Your task to perform on an android device: What's US dollar exchange rate against the British Pound? Image 0: 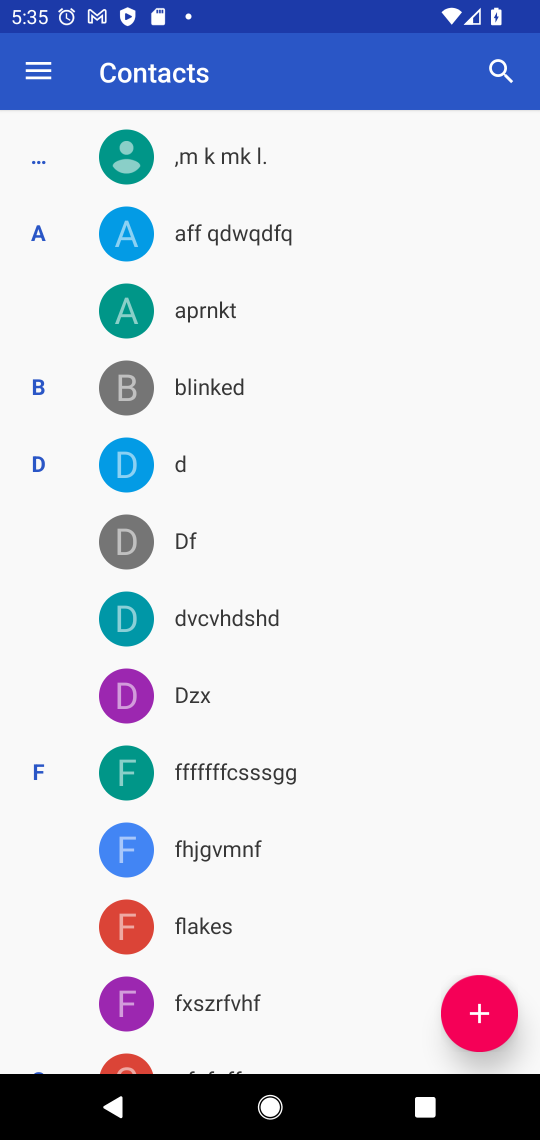
Step 0: press home button
Your task to perform on an android device: What's US dollar exchange rate against the British Pound? Image 1: 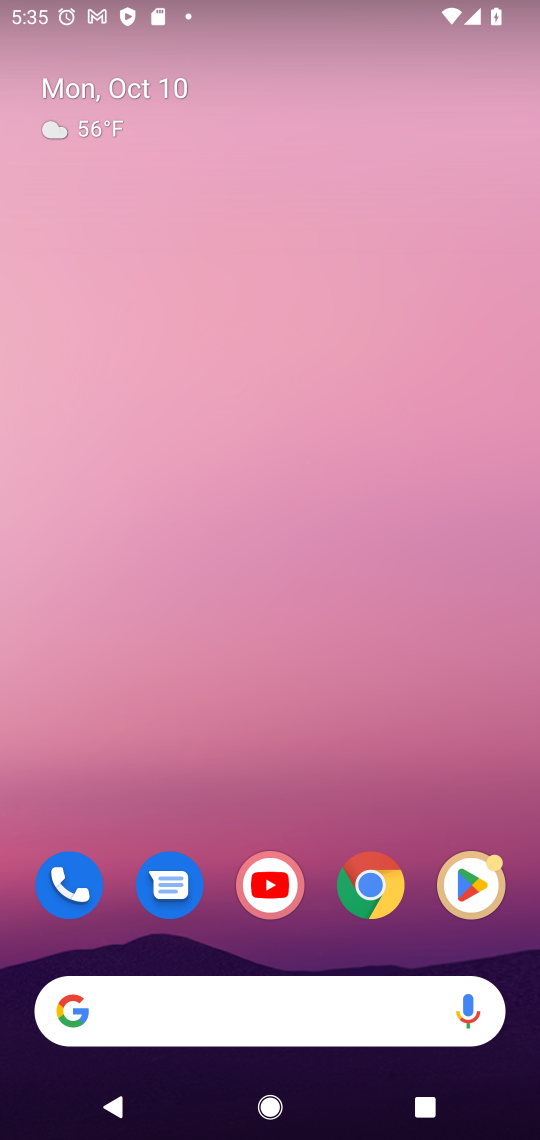
Step 1: click (146, 1023)
Your task to perform on an android device: What's US dollar exchange rate against the British Pound? Image 2: 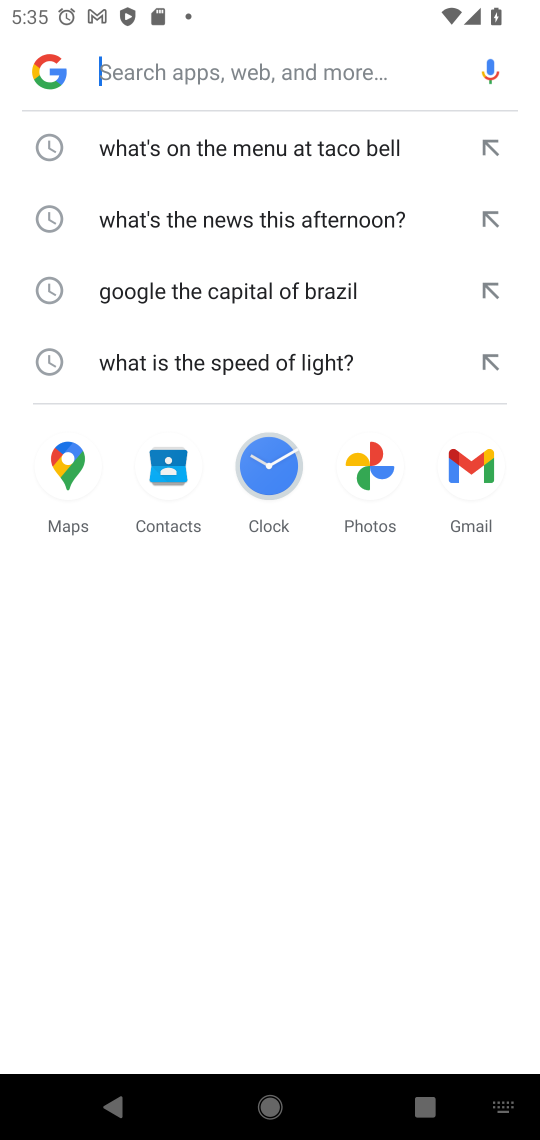
Step 2: type "What's US dollar exchange rate against the British Pound?"
Your task to perform on an android device: What's US dollar exchange rate against the British Pound? Image 3: 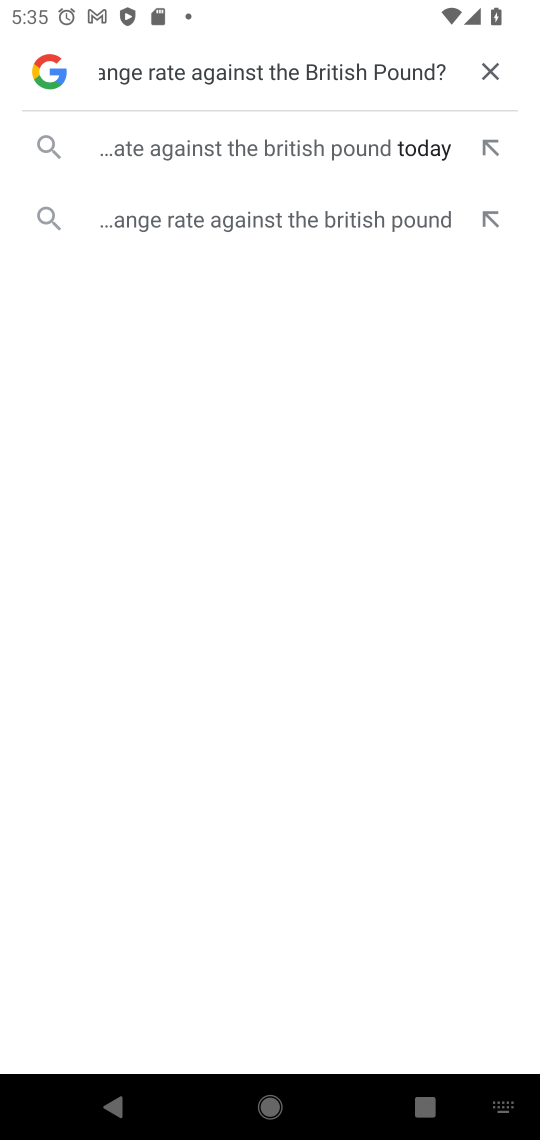
Step 3: click (260, 222)
Your task to perform on an android device: What's US dollar exchange rate against the British Pound? Image 4: 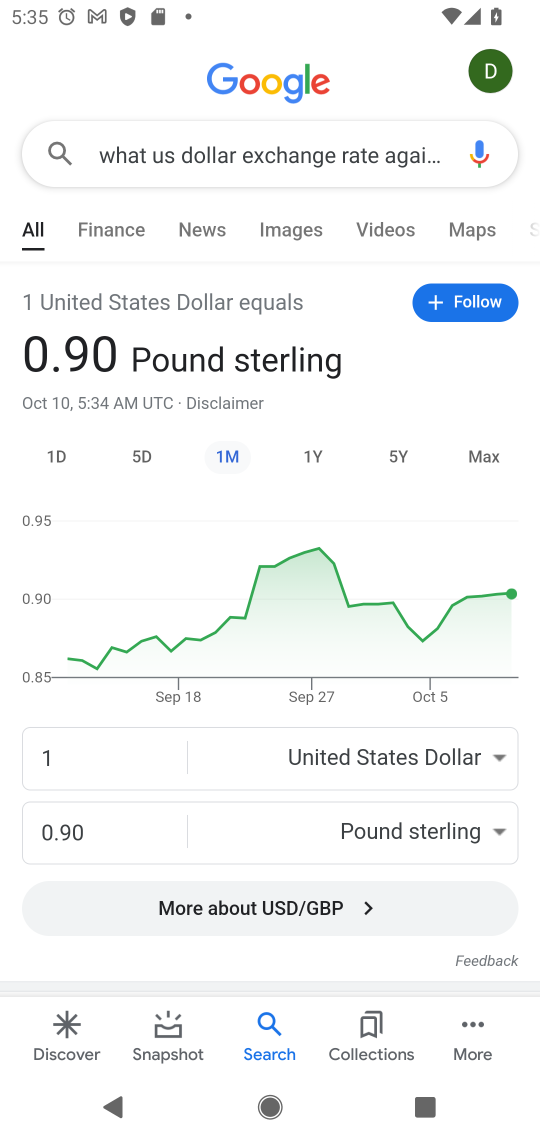
Step 4: task complete